Your task to perform on an android device: Open the stopwatch Image 0: 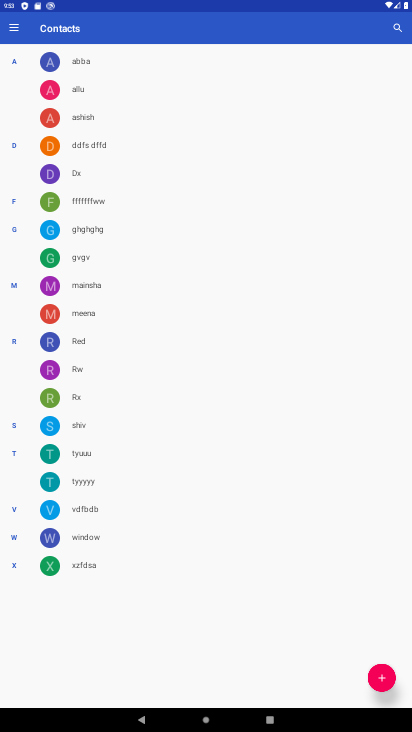
Step 0: press home button
Your task to perform on an android device: Open the stopwatch Image 1: 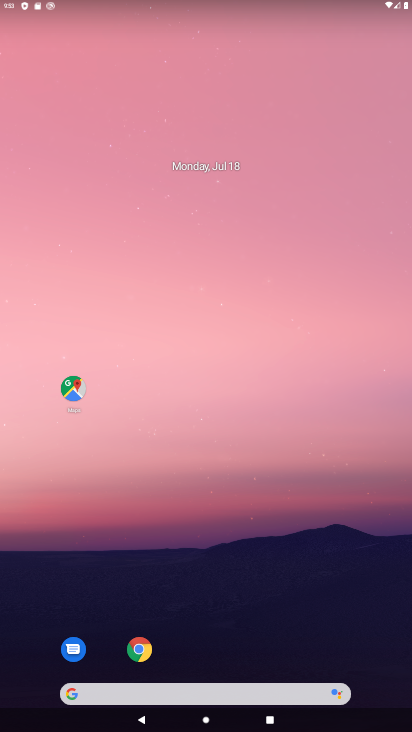
Step 1: drag from (39, 577) to (248, 150)
Your task to perform on an android device: Open the stopwatch Image 2: 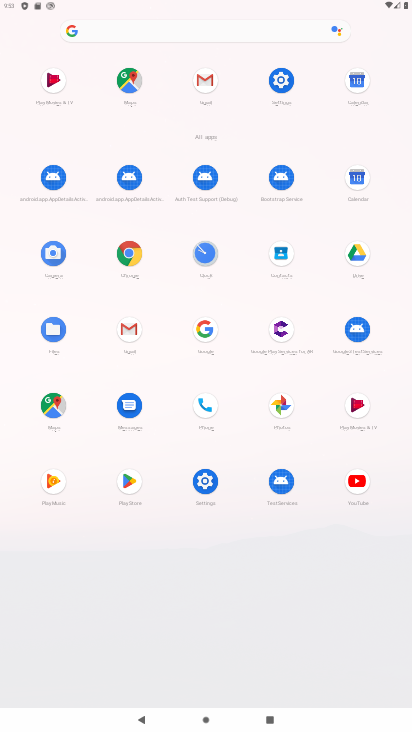
Step 2: click (212, 245)
Your task to perform on an android device: Open the stopwatch Image 3: 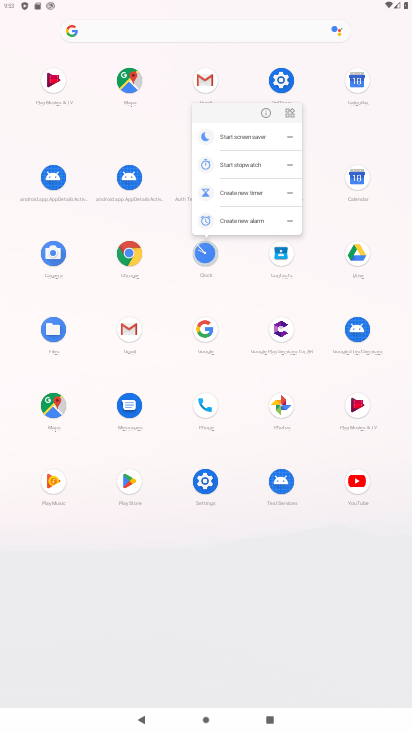
Step 3: click (203, 250)
Your task to perform on an android device: Open the stopwatch Image 4: 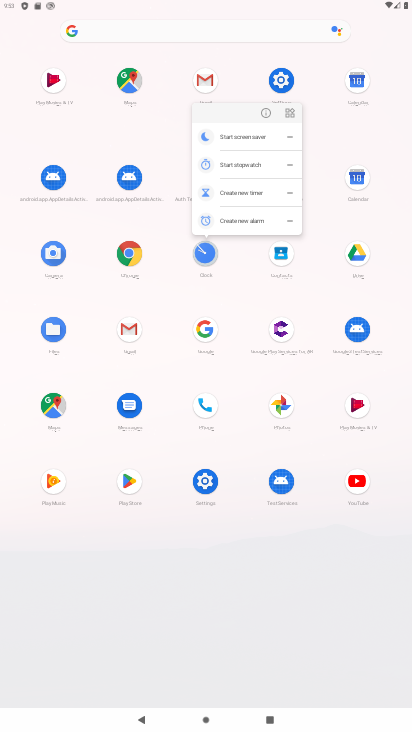
Step 4: click (203, 250)
Your task to perform on an android device: Open the stopwatch Image 5: 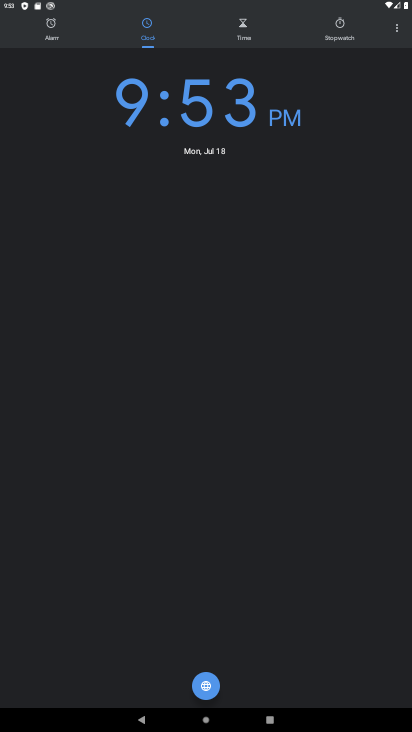
Step 5: click (329, 33)
Your task to perform on an android device: Open the stopwatch Image 6: 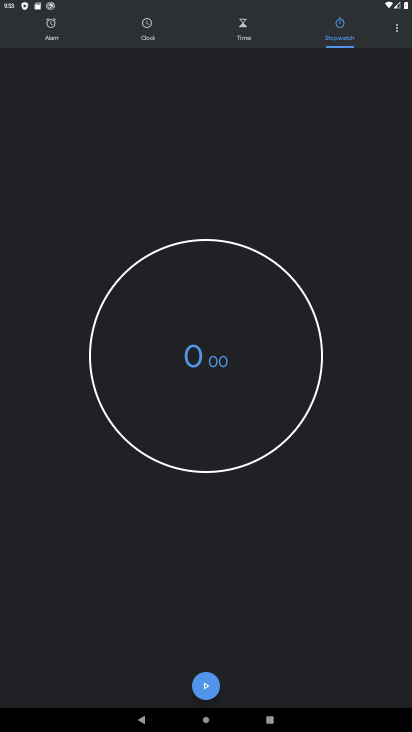
Step 6: click (201, 679)
Your task to perform on an android device: Open the stopwatch Image 7: 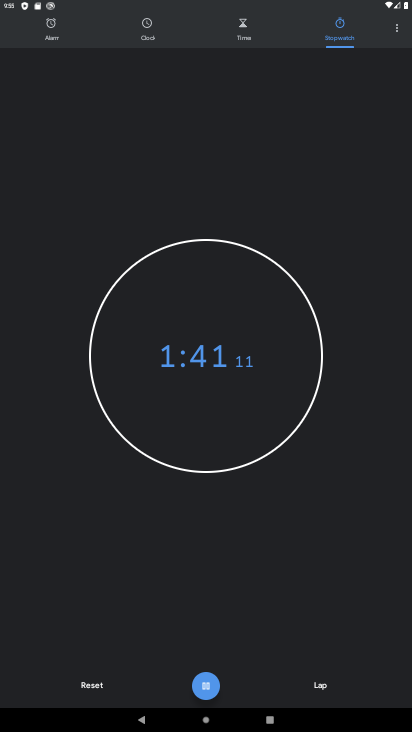
Step 7: task complete